Your task to perform on an android device: empty trash in google photos Image 0: 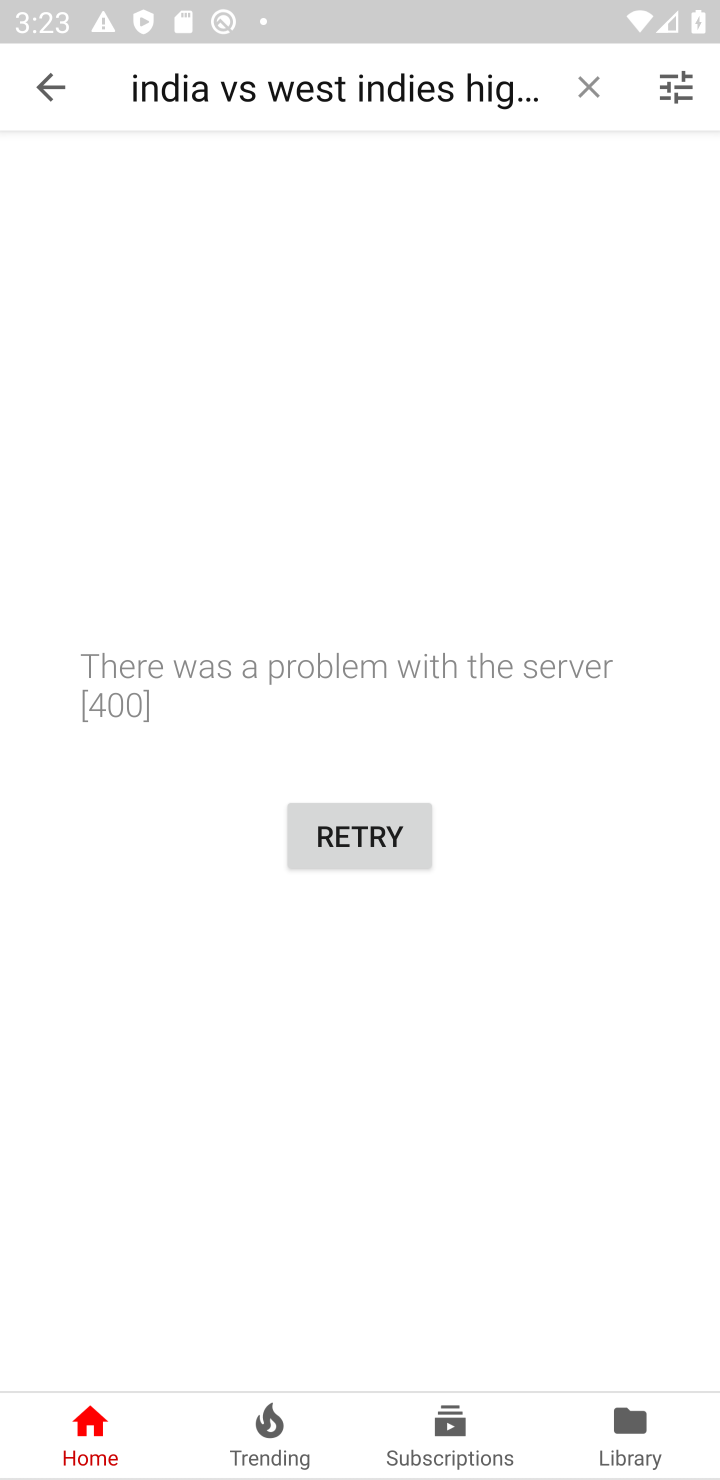
Step 0: press home button
Your task to perform on an android device: empty trash in google photos Image 1: 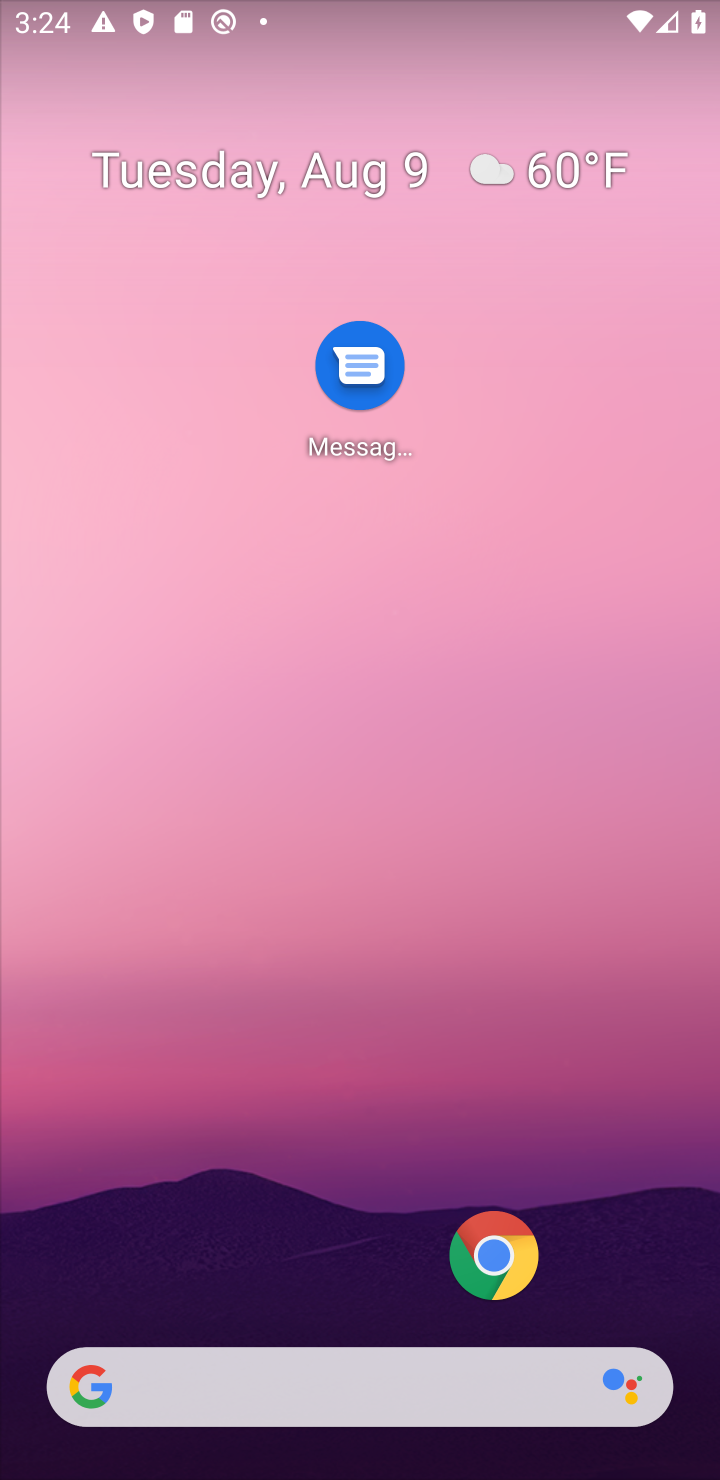
Step 1: drag from (318, 1383) to (307, 388)
Your task to perform on an android device: empty trash in google photos Image 2: 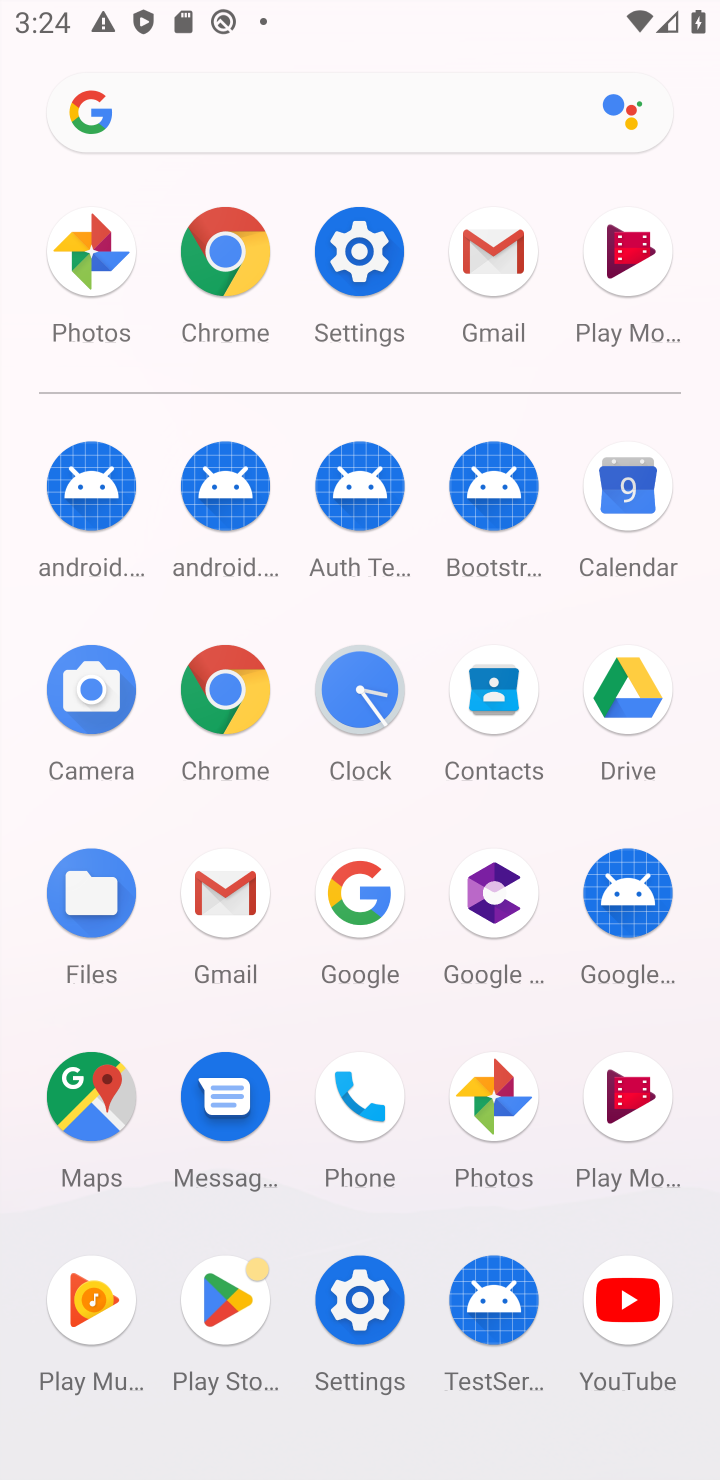
Step 2: drag from (239, 956) to (335, 596)
Your task to perform on an android device: empty trash in google photos Image 3: 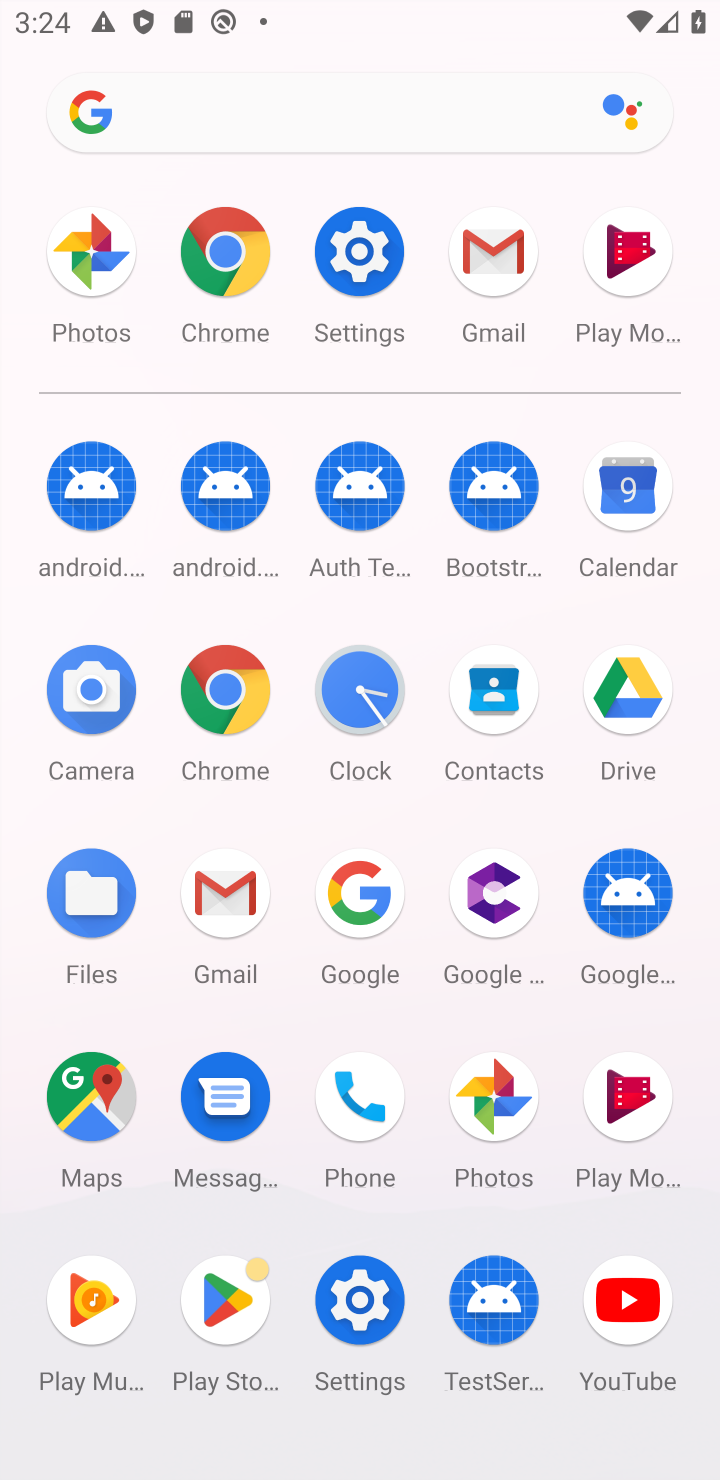
Step 3: click (487, 1091)
Your task to perform on an android device: empty trash in google photos Image 4: 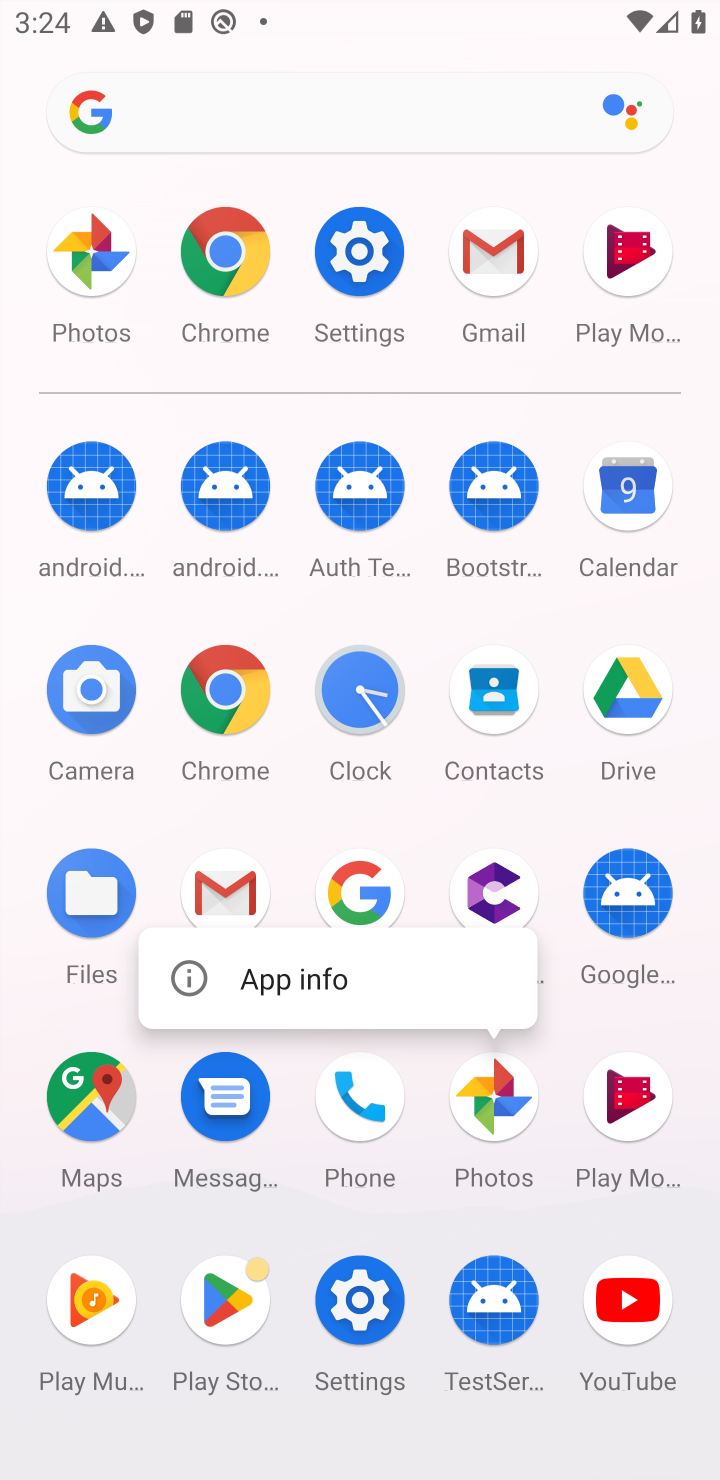
Step 4: click (472, 1076)
Your task to perform on an android device: empty trash in google photos Image 5: 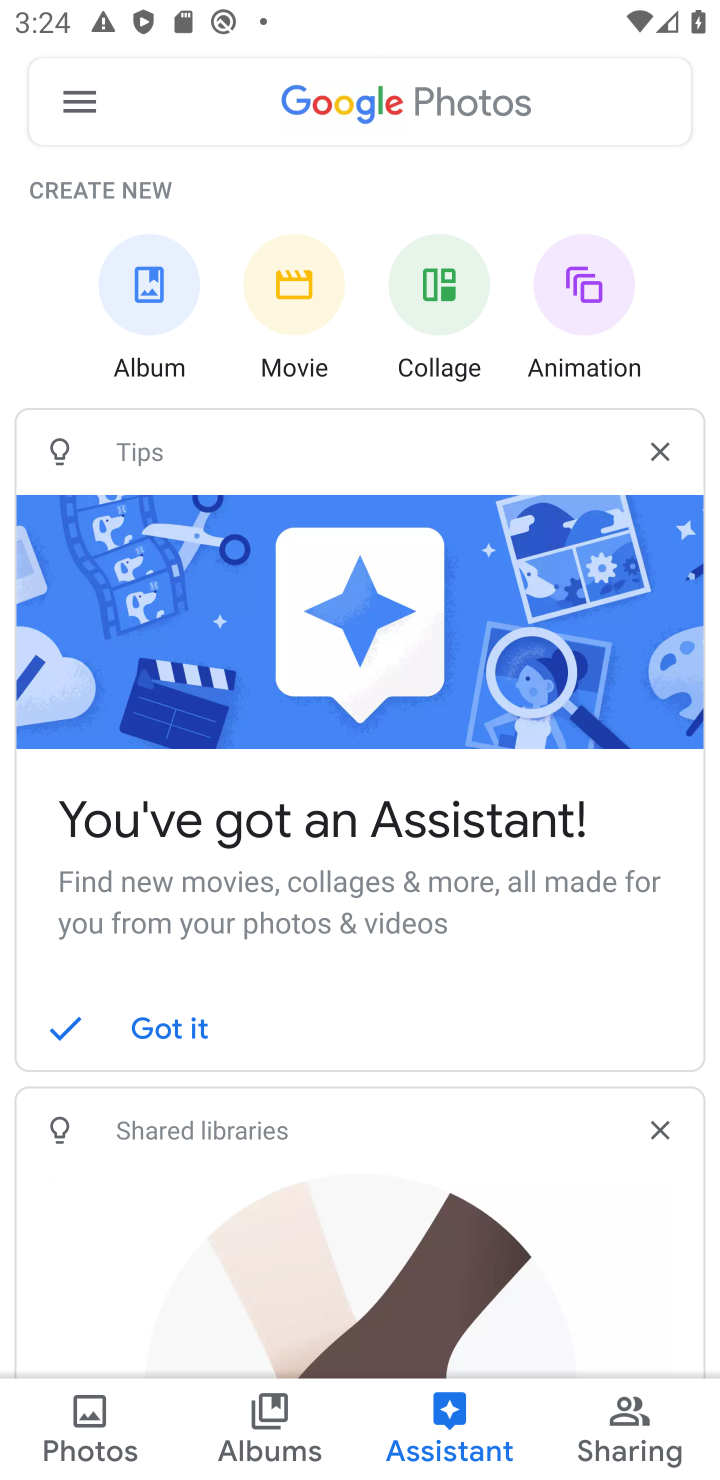
Step 5: click (83, 155)
Your task to perform on an android device: empty trash in google photos Image 6: 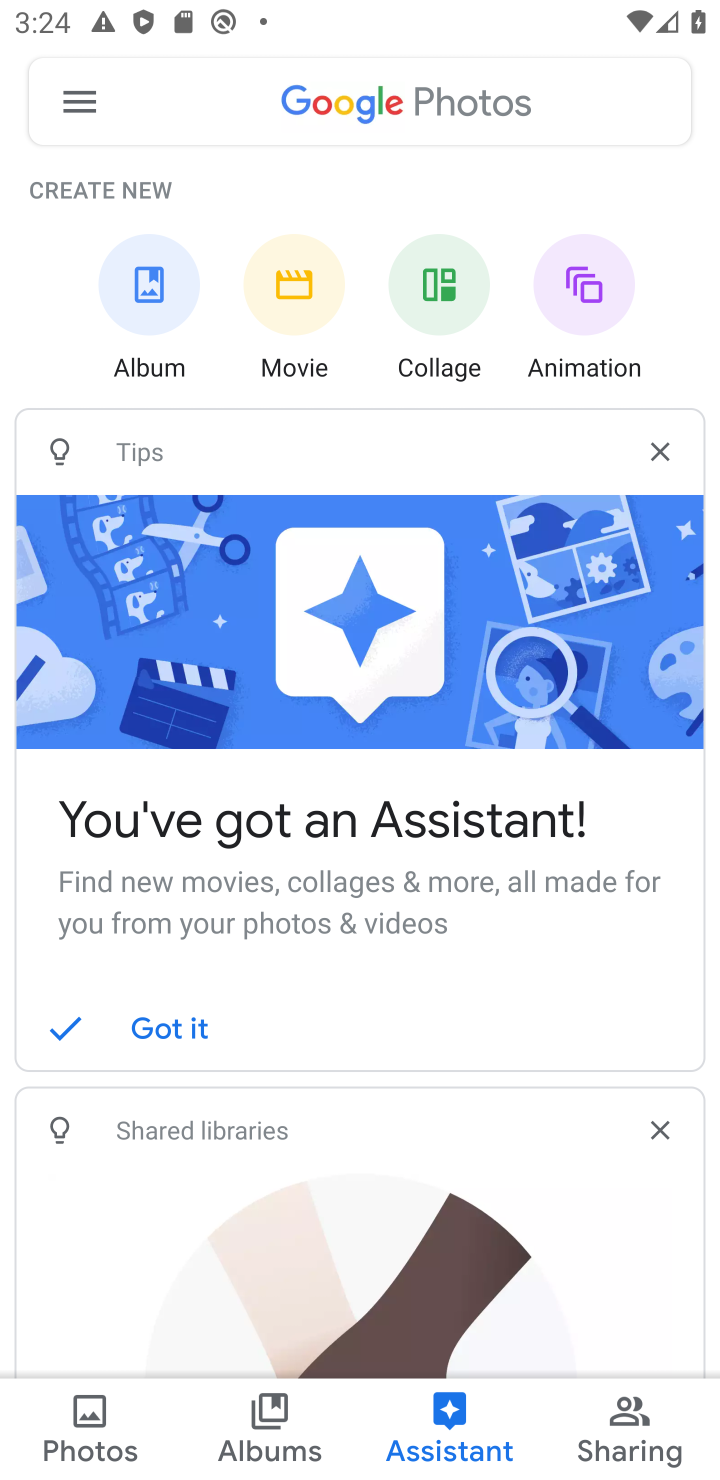
Step 6: click (83, 94)
Your task to perform on an android device: empty trash in google photos Image 7: 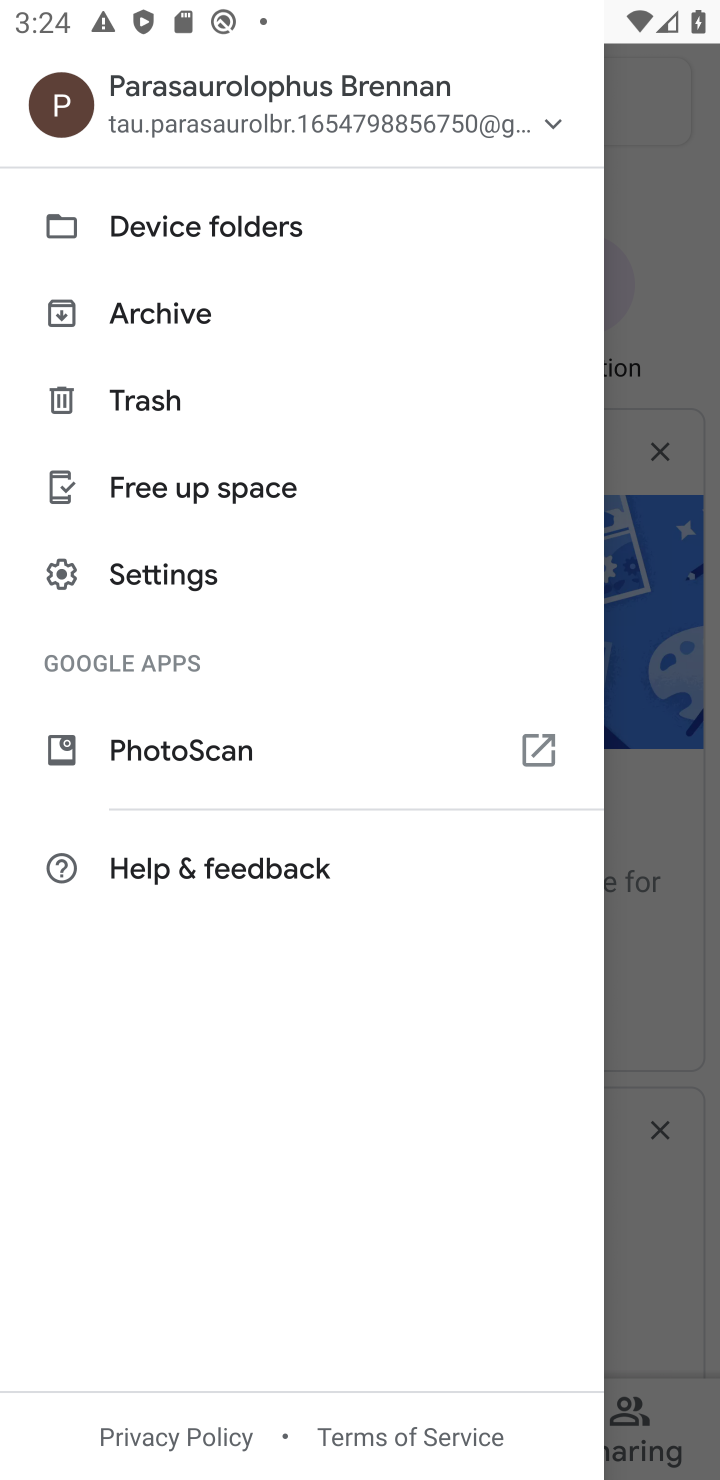
Step 7: click (162, 408)
Your task to perform on an android device: empty trash in google photos Image 8: 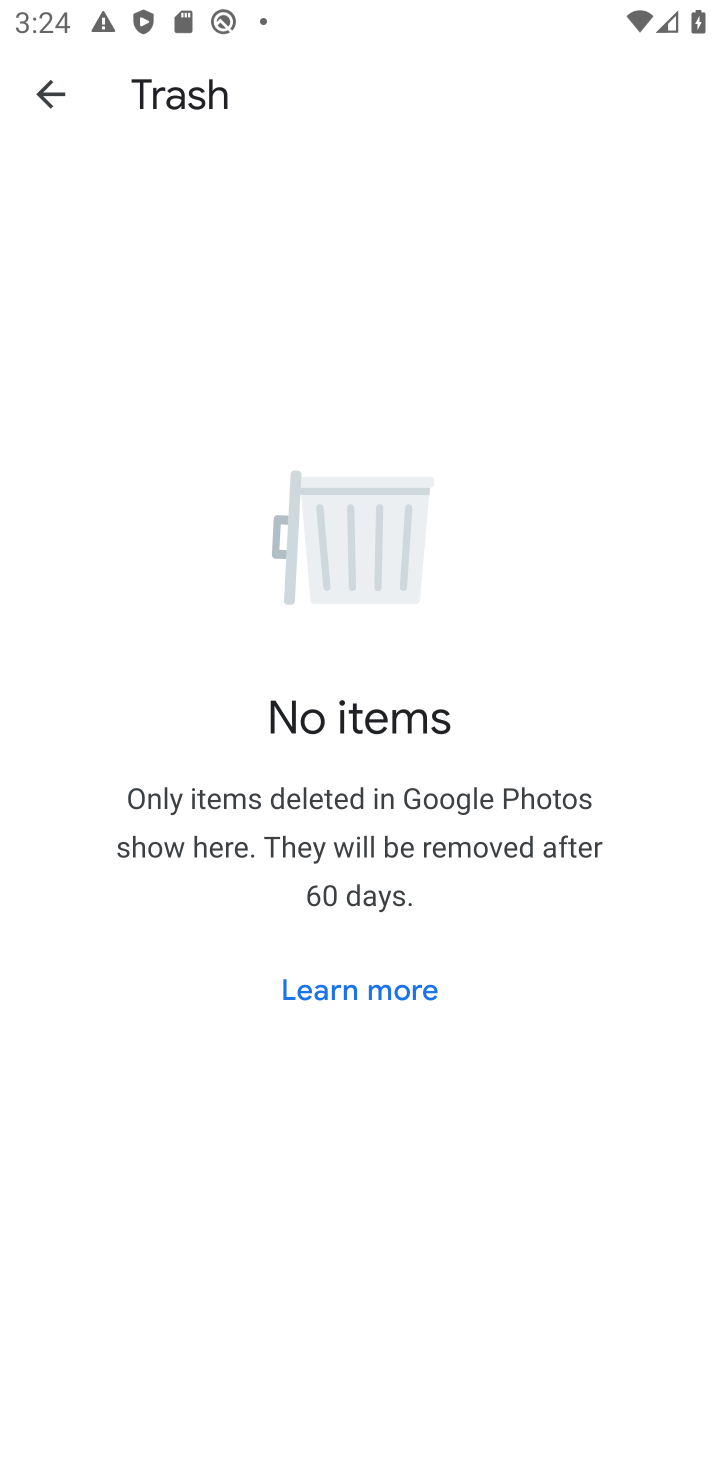
Step 8: task complete